Your task to perform on an android device: toggle airplane mode Image 0: 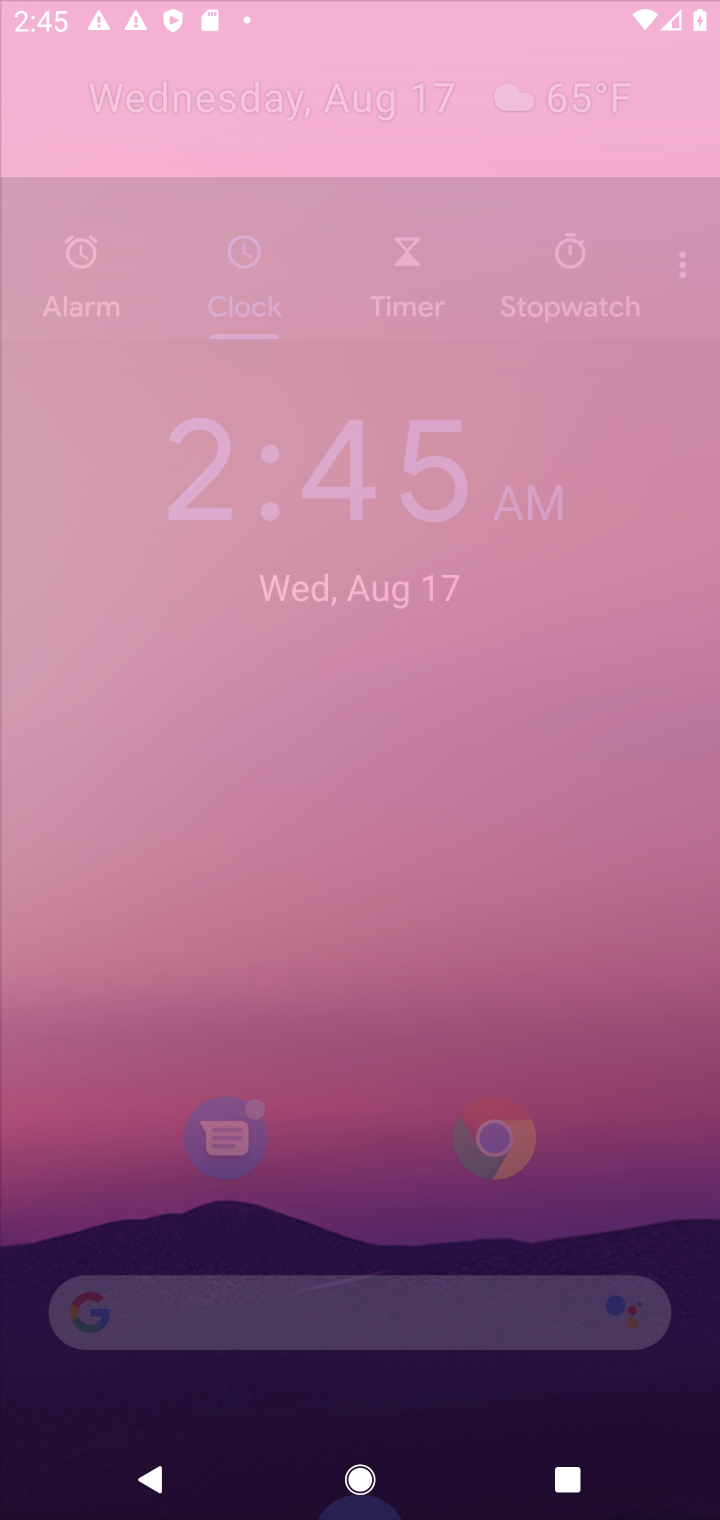
Step 0: press back button
Your task to perform on an android device: toggle airplane mode Image 1: 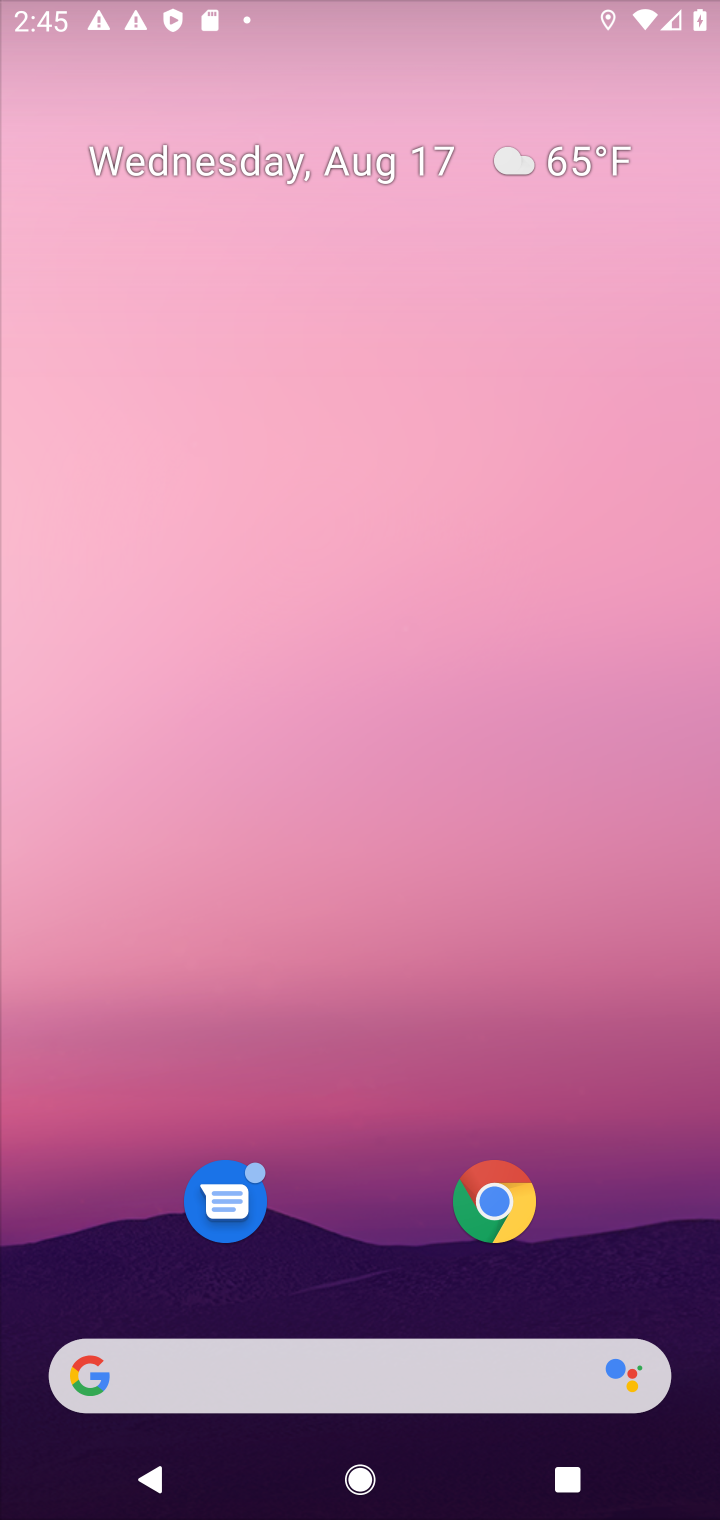
Step 1: drag from (633, 122) to (426, 1258)
Your task to perform on an android device: toggle airplane mode Image 2: 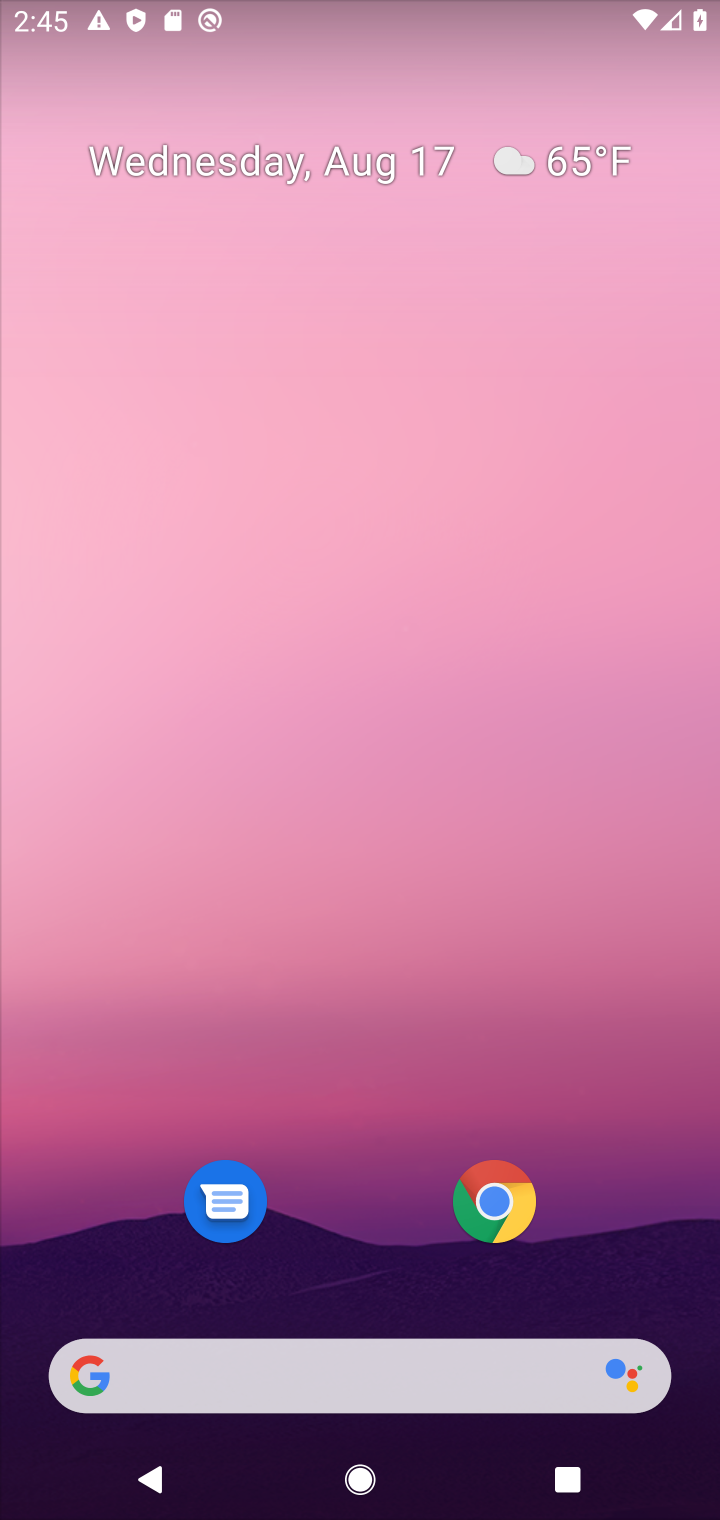
Step 2: drag from (634, 132) to (478, 989)
Your task to perform on an android device: toggle airplane mode Image 3: 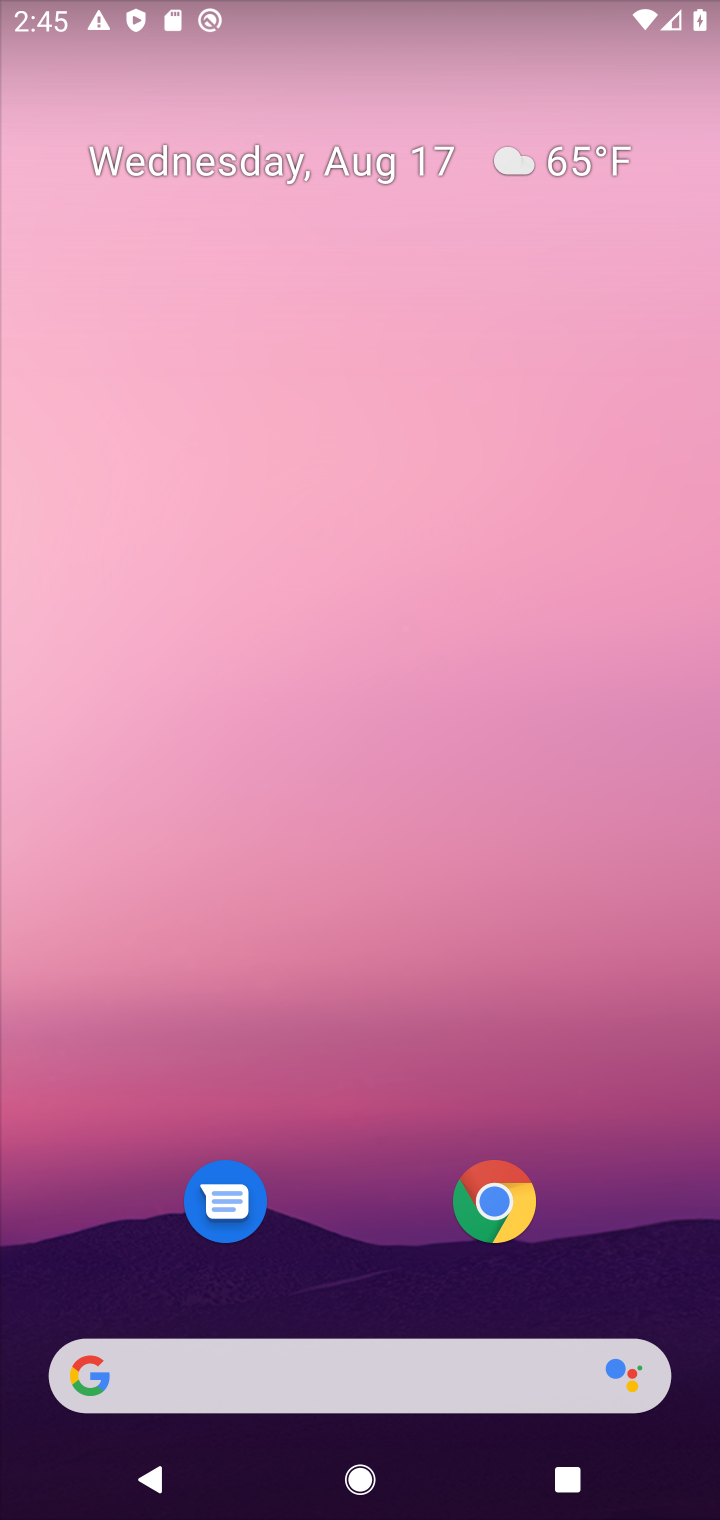
Step 3: drag from (322, 233) to (416, 1288)
Your task to perform on an android device: toggle airplane mode Image 4: 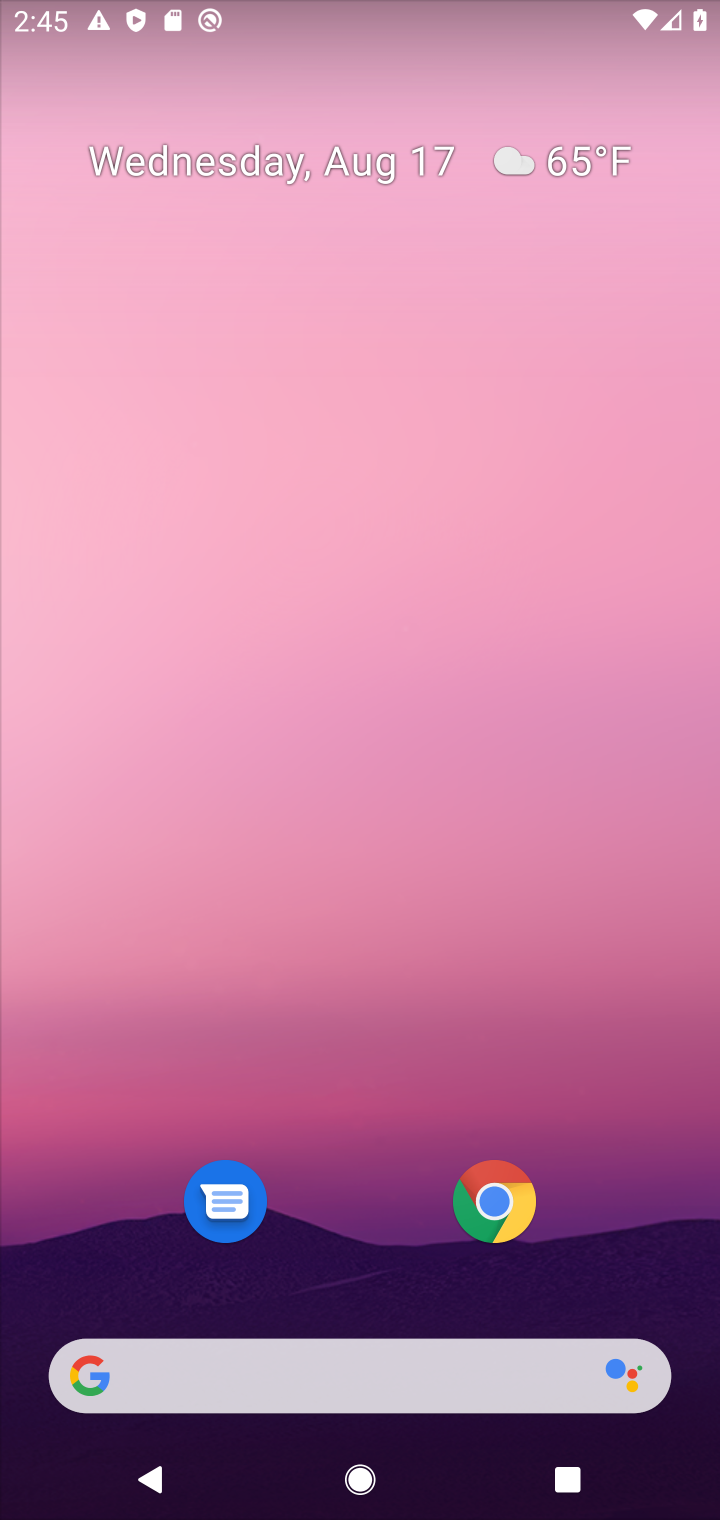
Step 4: drag from (186, 391) to (378, 1214)
Your task to perform on an android device: toggle airplane mode Image 5: 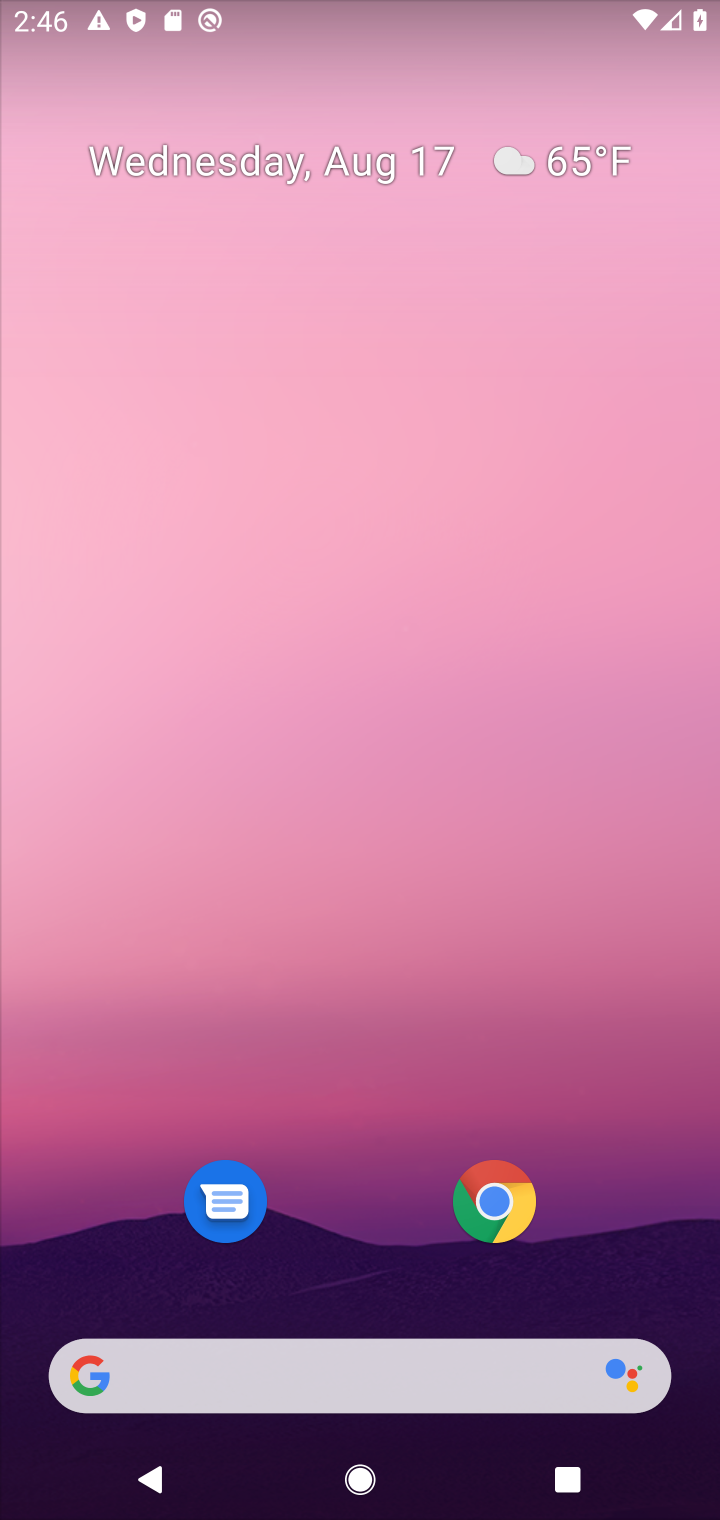
Step 5: drag from (669, 23) to (542, 935)
Your task to perform on an android device: toggle airplane mode Image 6: 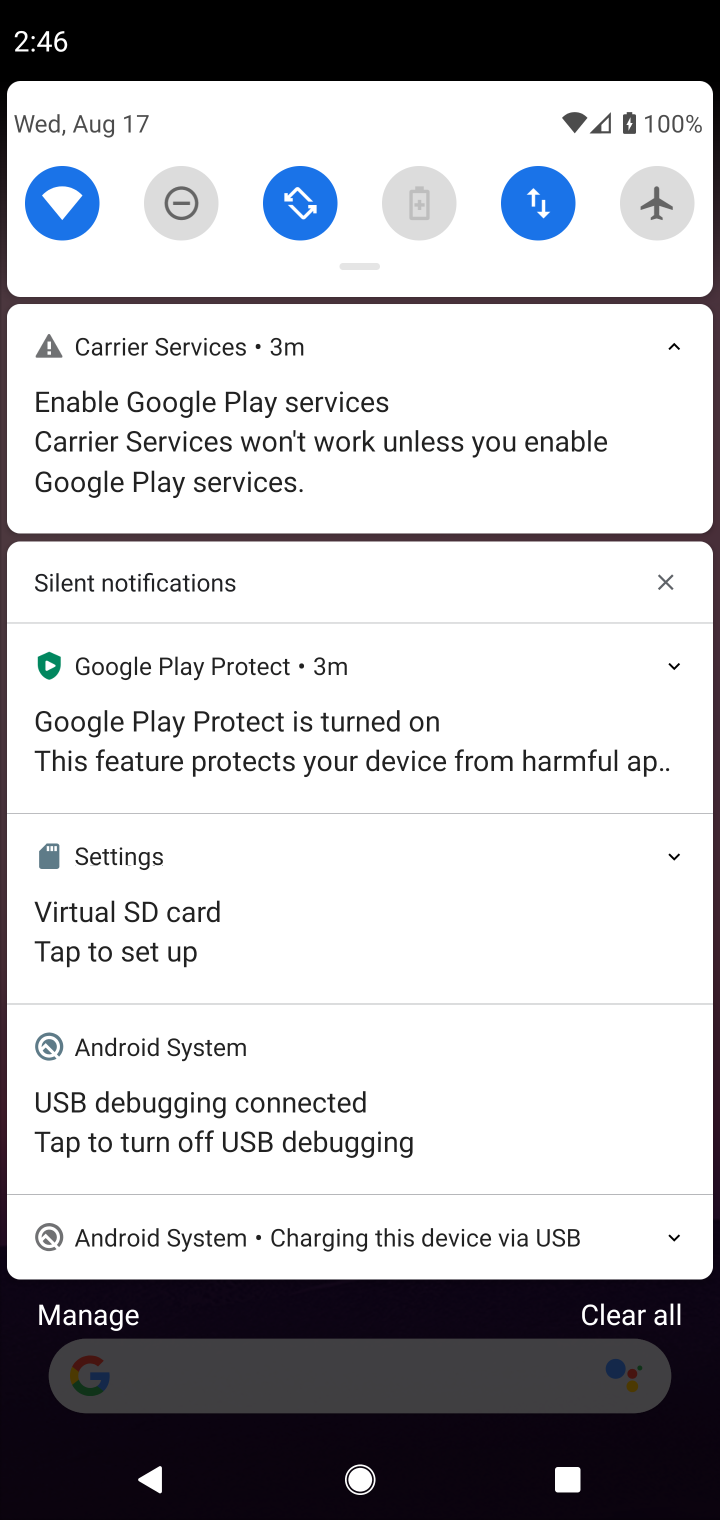
Step 6: click (647, 208)
Your task to perform on an android device: toggle airplane mode Image 7: 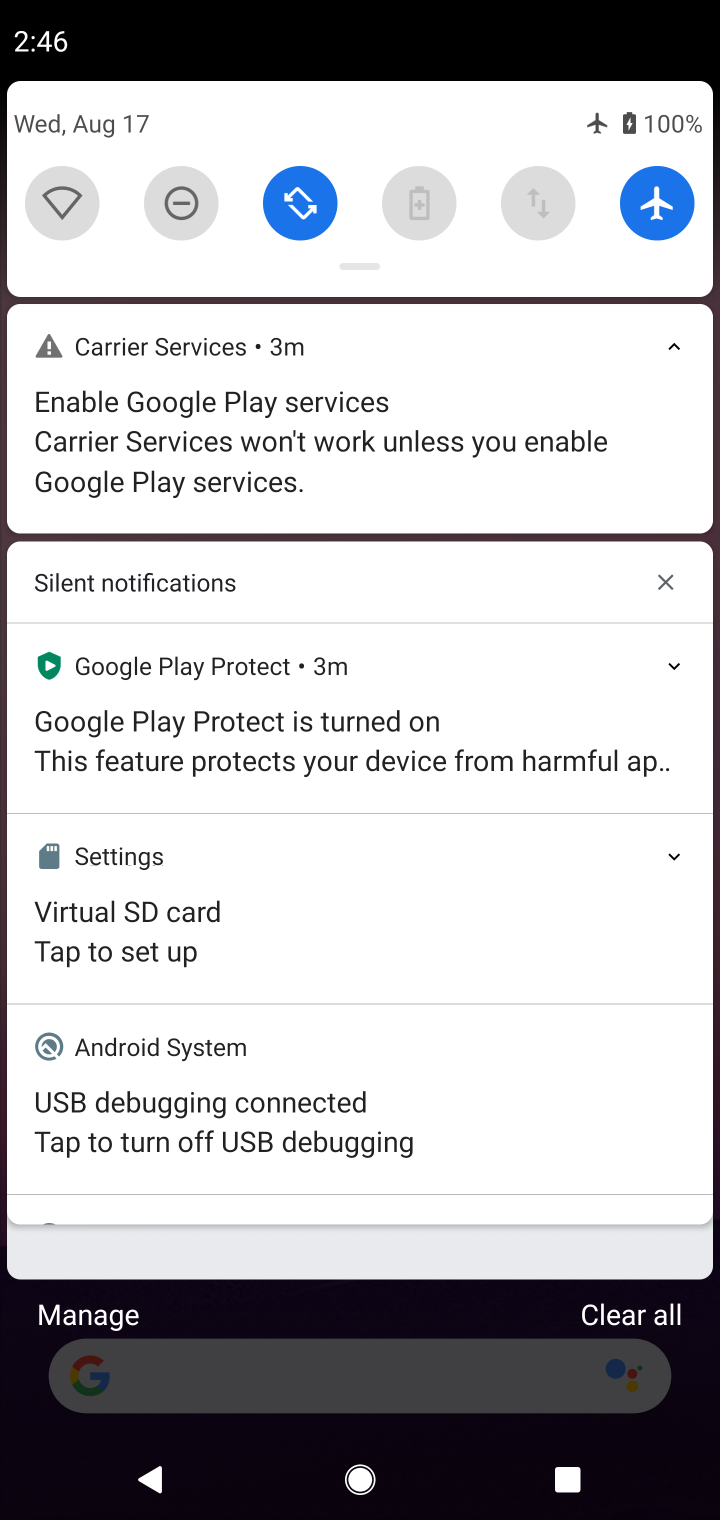
Step 7: task complete